Your task to perform on an android device: toggle sleep mode Image 0: 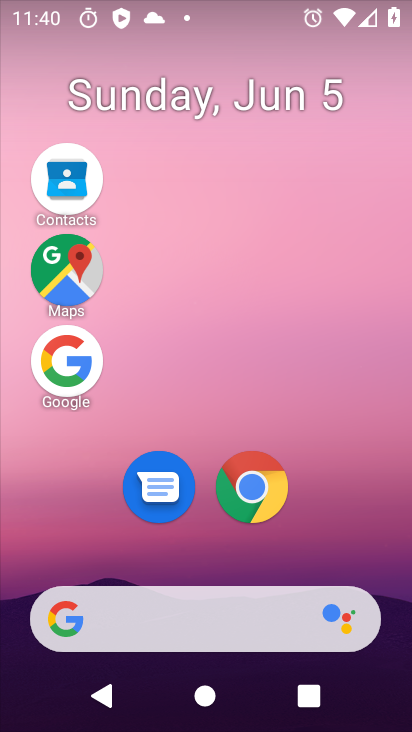
Step 0: drag from (248, 704) to (208, 225)
Your task to perform on an android device: toggle sleep mode Image 1: 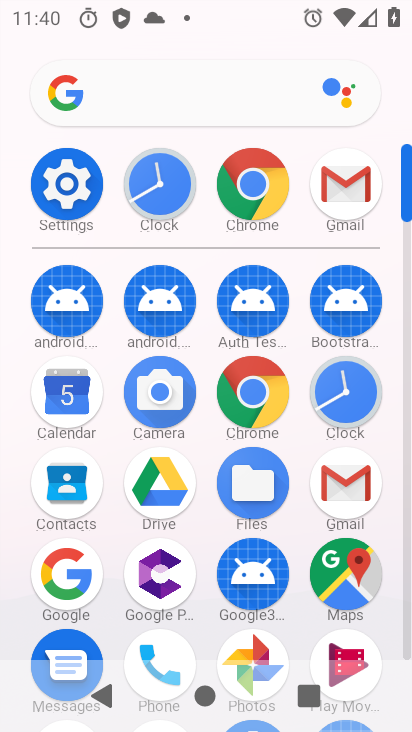
Step 1: click (94, 168)
Your task to perform on an android device: toggle sleep mode Image 2: 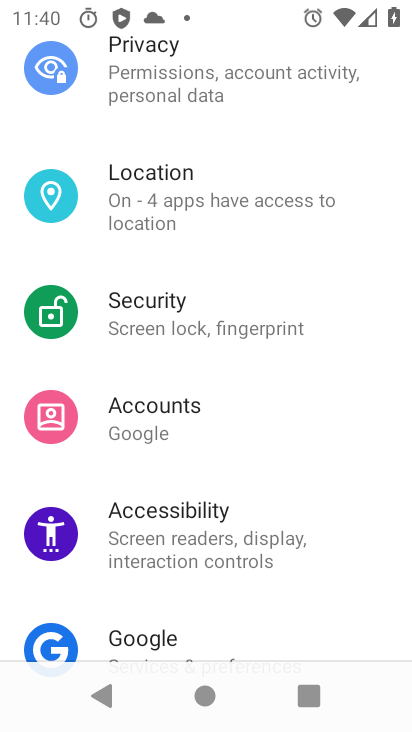
Step 2: drag from (129, 259) to (190, 587)
Your task to perform on an android device: toggle sleep mode Image 3: 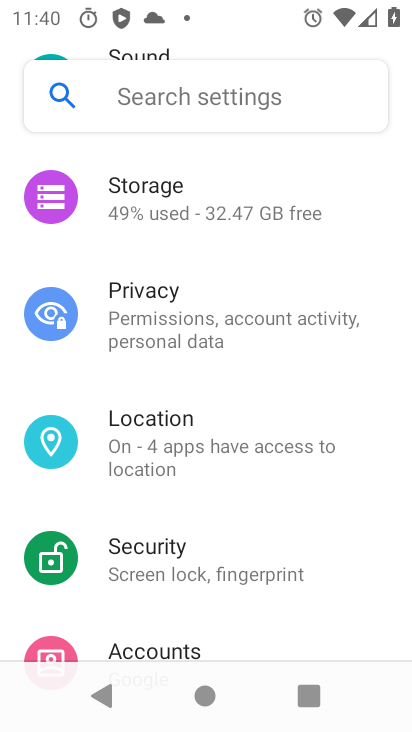
Step 3: drag from (235, 302) to (251, 599)
Your task to perform on an android device: toggle sleep mode Image 4: 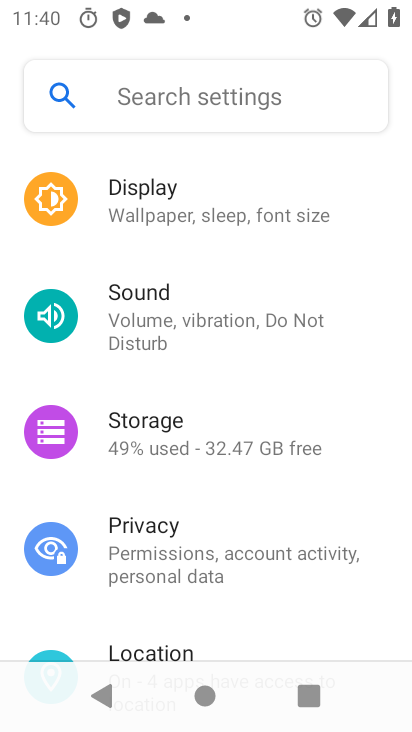
Step 4: drag from (221, 276) to (234, 423)
Your task to perform on an android device: toggle sleep mode Image 5: 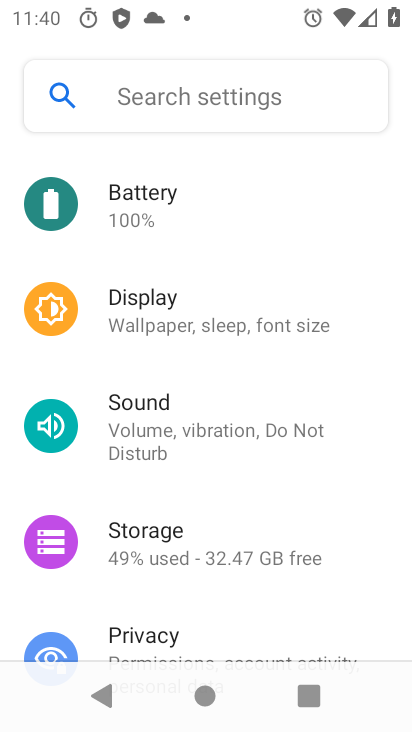
Step 5: click (217, 321)
Your task to perform on an android device: toggle sleep mode Image 6: 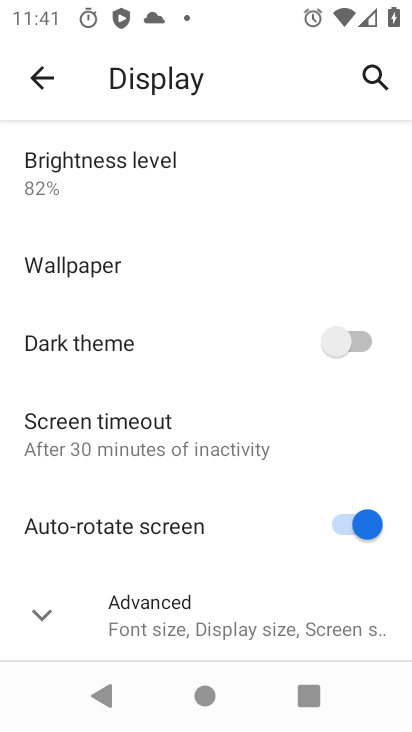
Step 6: click (180, 630)
Your task to perform on an android device: toggle sleep mode Image 7: 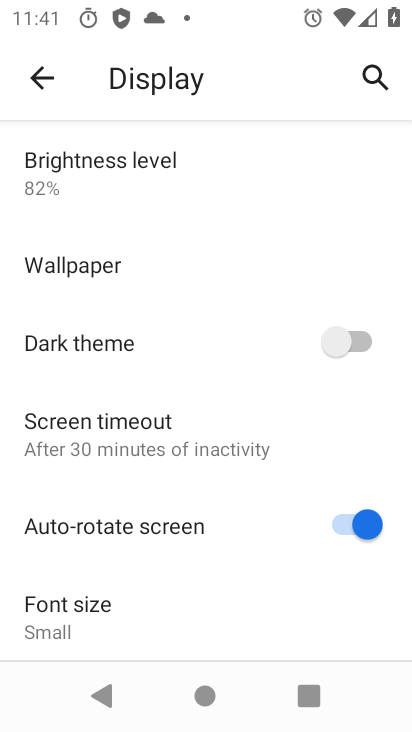
Step 7: task complete